Your task to perform on an android device: open app "TextNow: Call + Text Unlimited" (install if not already installed) Image 0: 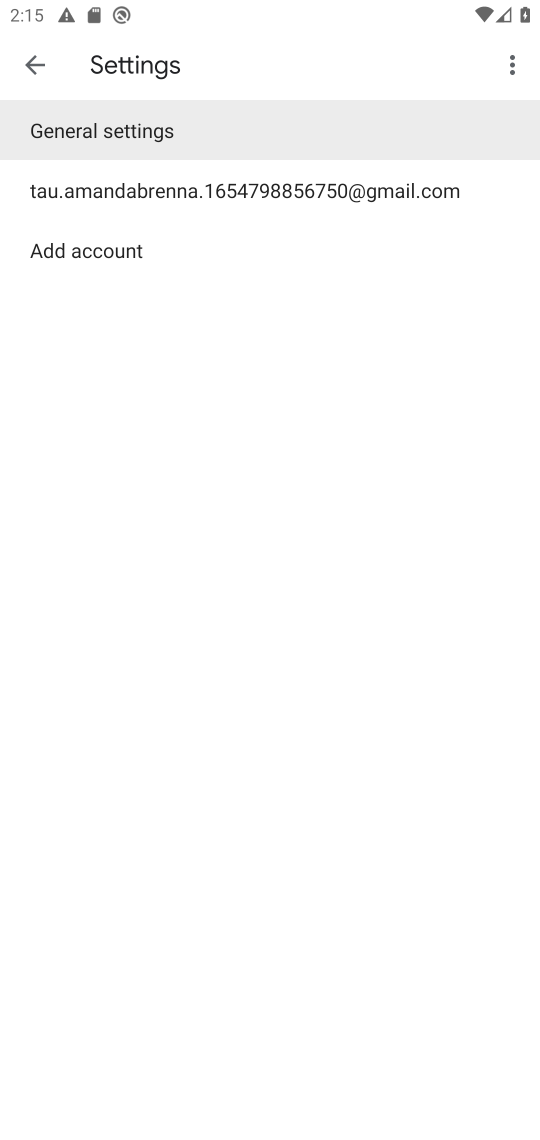
Step 0: press home button
Your task to perform on an android device: open app "TextNow: Call + Text Unlimited" (install if not already installed) Image 1: 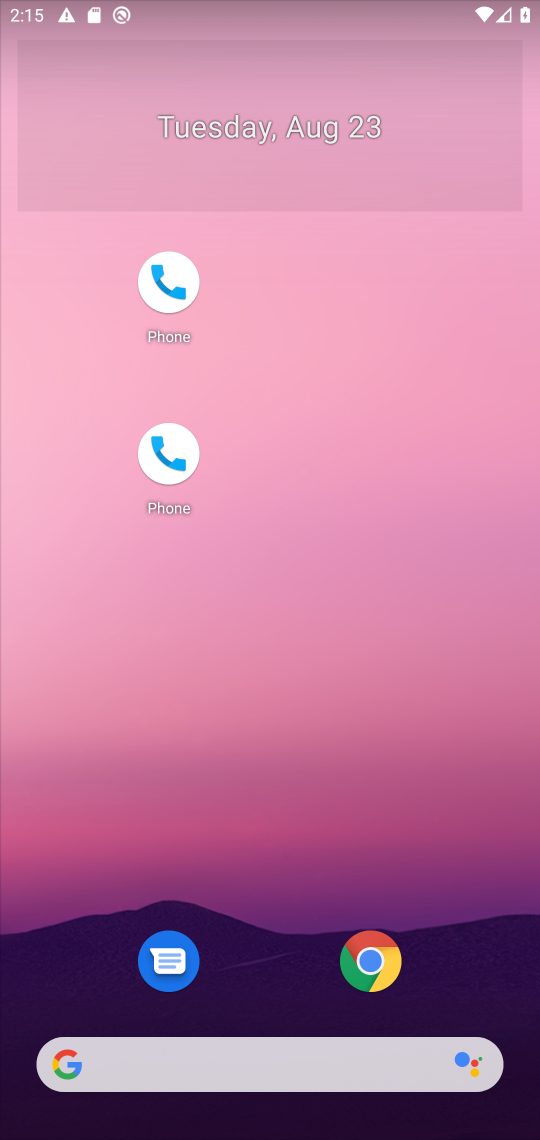
Step 1: drag from (275, 972) to (294, 204)
Your task to perform on an android device: open app "TextNow: Call + Text Unlimited" (install if not already installed) Image 2: 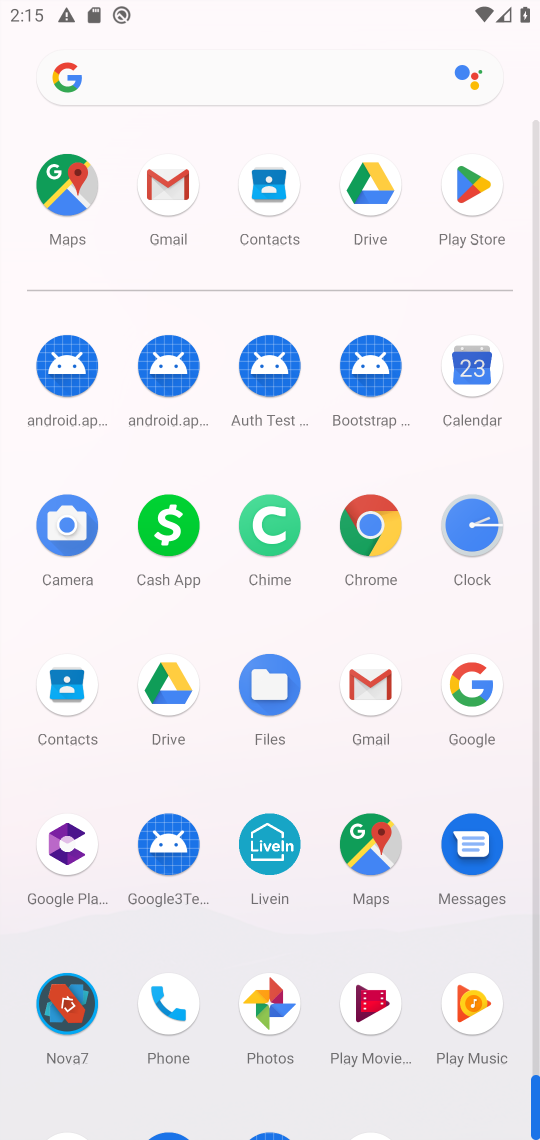
Step 2: click (464, 196)
Your task to perform on an android device: open app "TextNow: Call + Text Unlimited" (install if not already installed) Image 3: 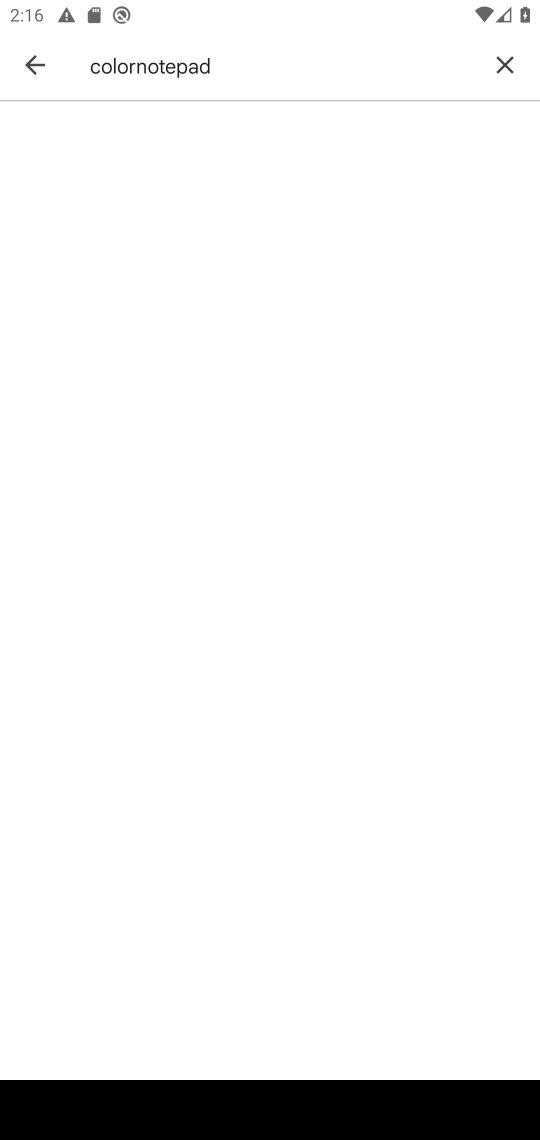
Step 3: click (500, 59)
Your task to perform on an android device: open app "TextNow: Call + Text Unlimited" (install if not already installed) Image 4: 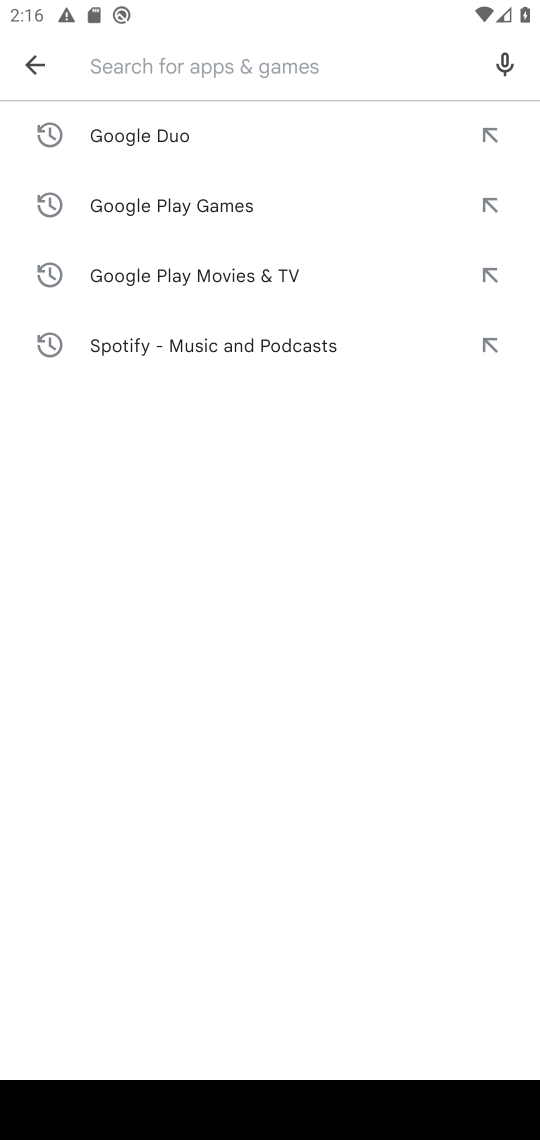
Step 4: type "textnow"
Your task to perform on an android device: open app "TextNow: Call + Text Unlimited" (install if not already installed) Image 5: 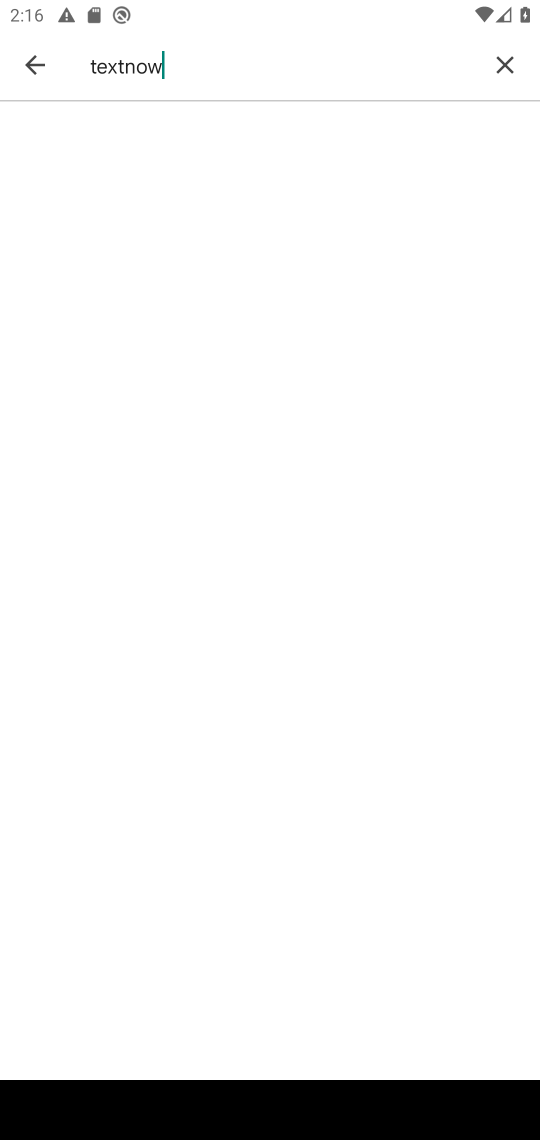
Step 5: task complete